Your task to perform on an android device: check the backup settings in the google photos Image 0: 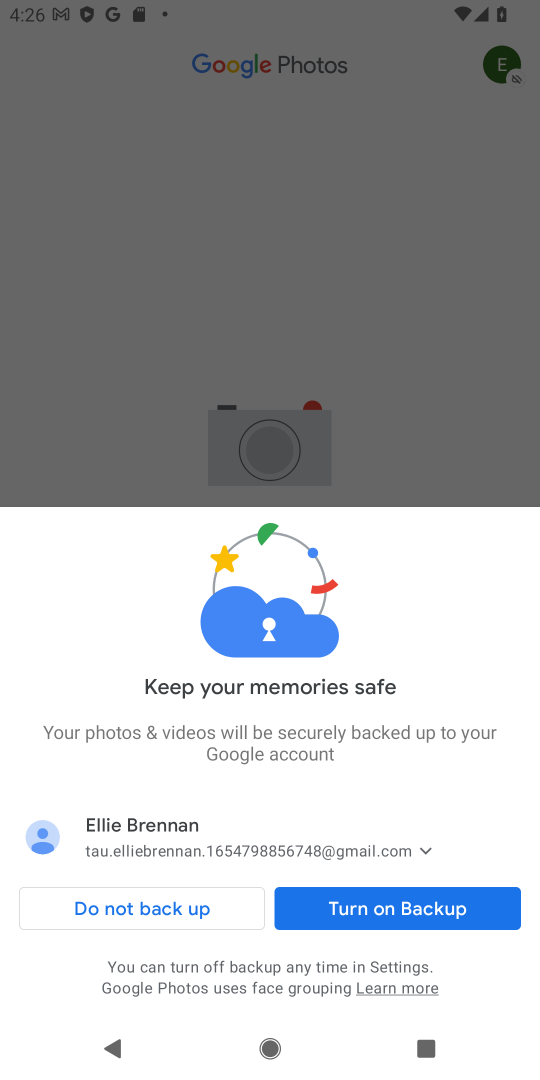
Step 0: press home button
Your task to perform on an android device: check the backup settings in the google photos Image 1: 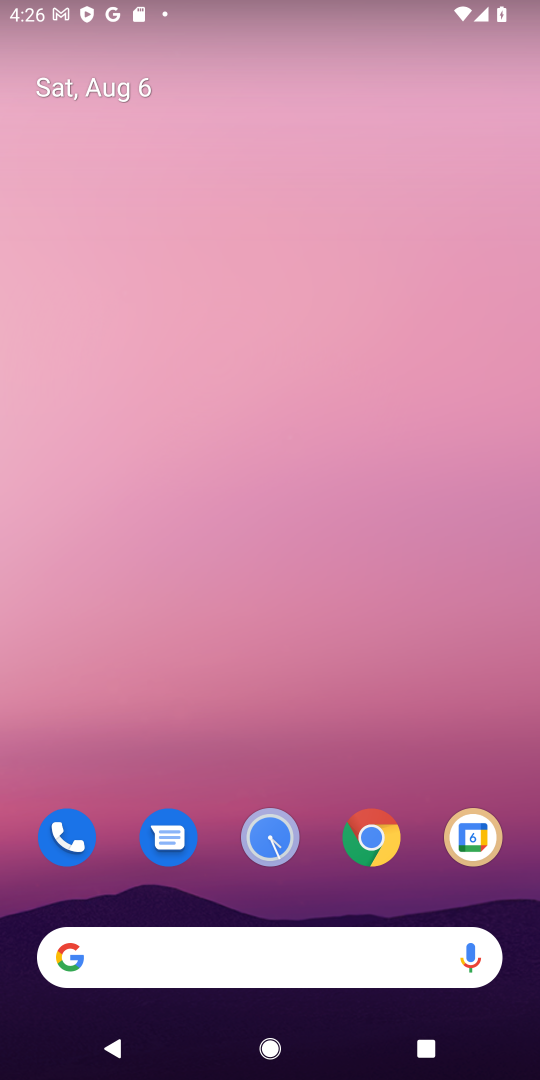
Step 1: drag from (422, 875) to (368, 85)
Your task to perform on an android device: check the backup settings in the google photos Image 2: 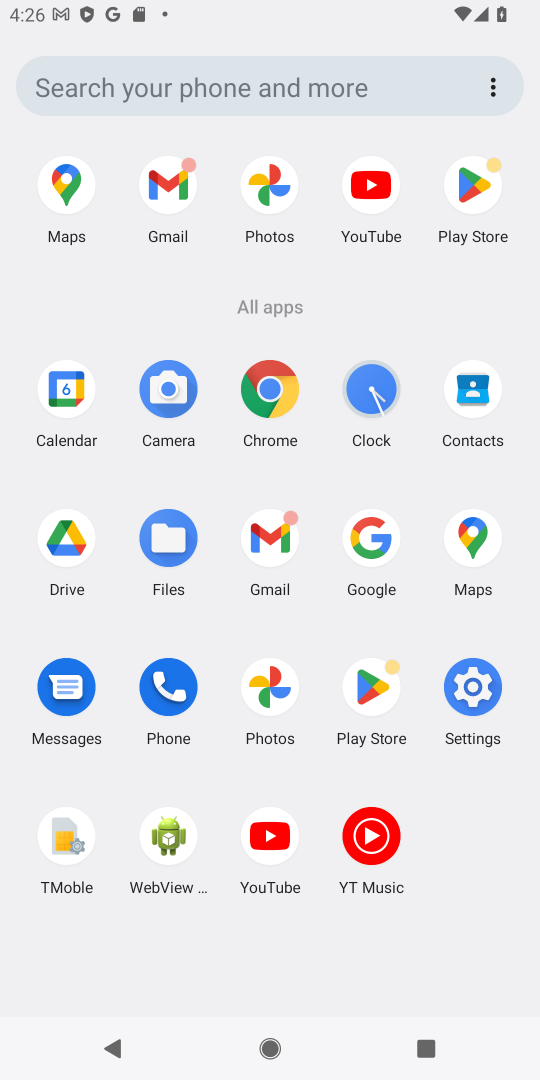
Step 2: click (267, 685)
Your task to perform on an android device: check the backup settings in the google photos Image 3: 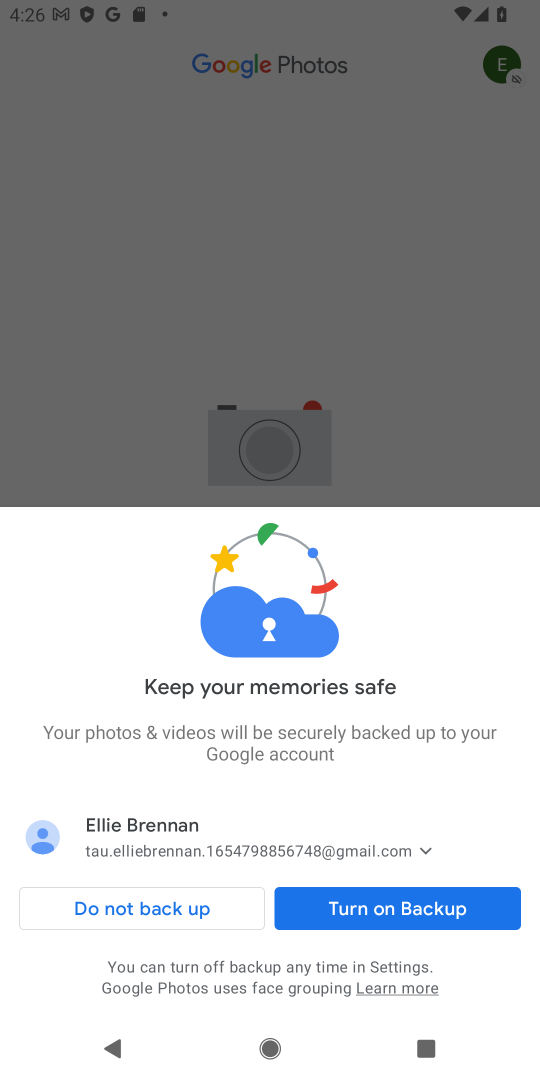
Step 3: click (393, 910)
Your task to perform on an android device: check the backup settings in the google photos Image 4: 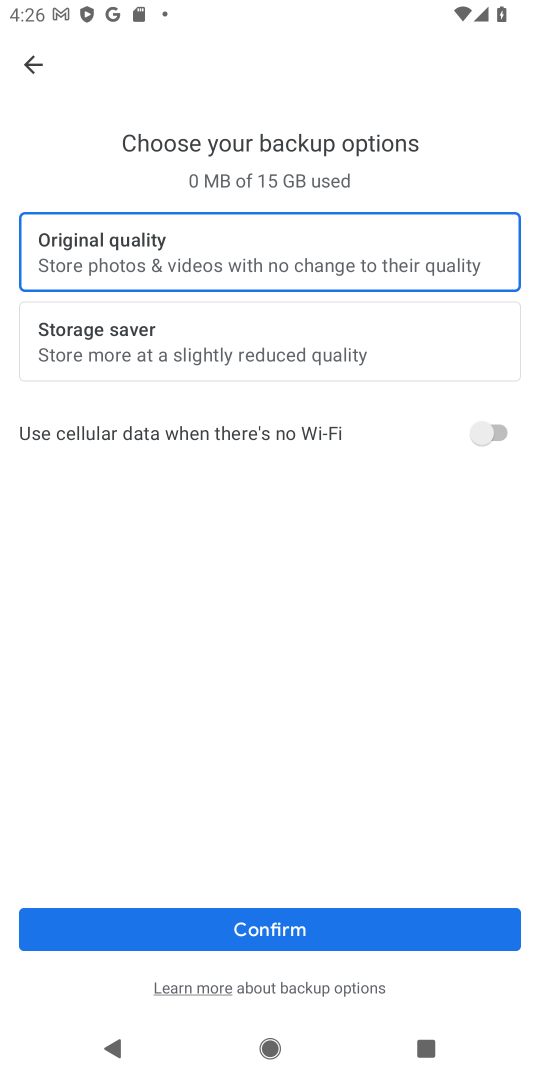
Step 4: click (272, 932)
Your task to perform on an android device: check the backup settings in the google photos Image 5: 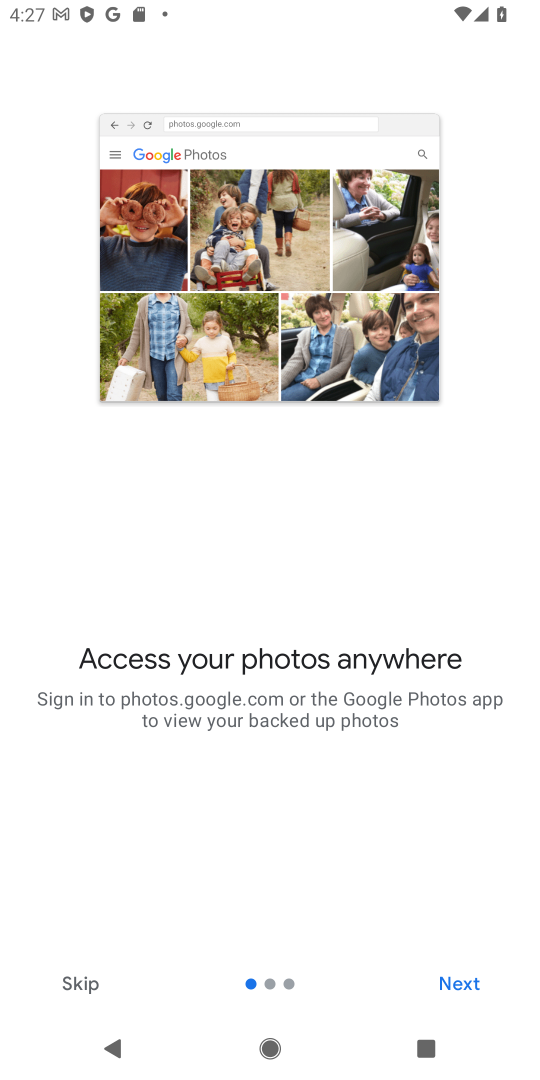
Step 5: click (75, 980)
Your task to perform on an android device: check the backup settings in the google photos Image 6: 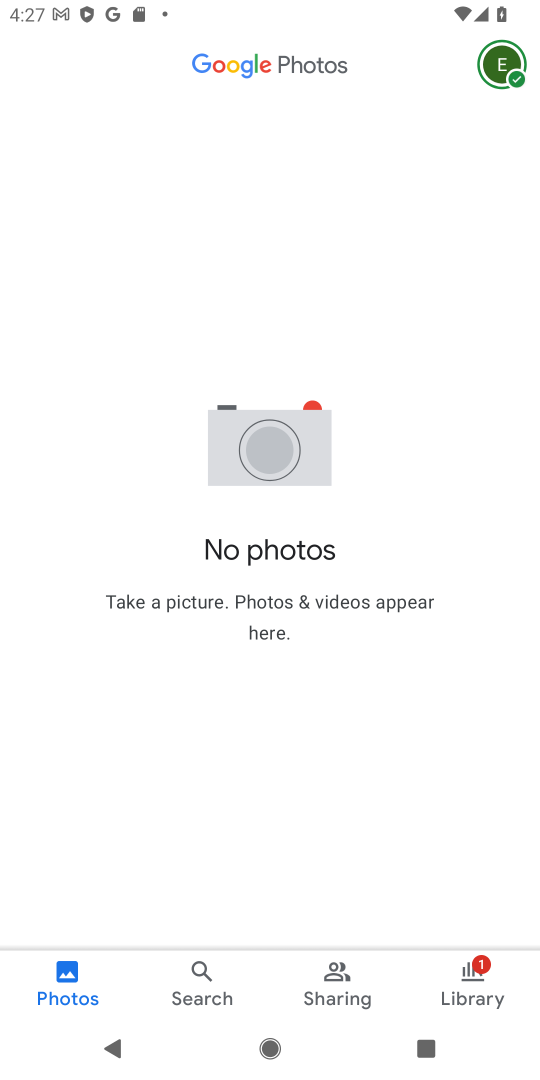
Step 6: click (504, 77)
Your task to perform on an android device: check the backup settings in the google photos Image 7: 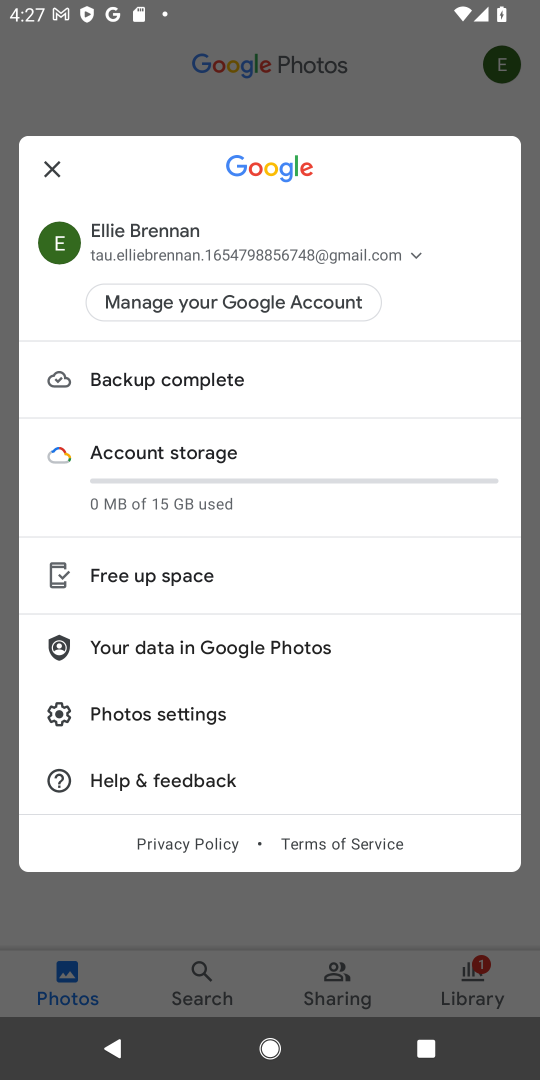
Step 7: click (147, 712)
Your task to perform on an android device: check the backup settings in the google photos Image 8: 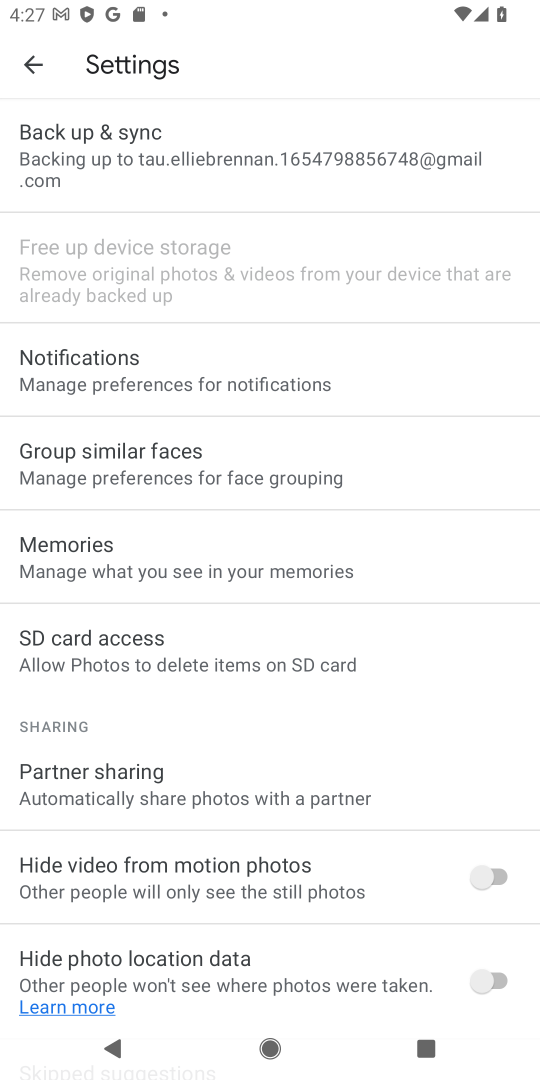
Step 8: click (119, 126)
Your task to perform on an android device: check the backup settings in the google photos Image 9: 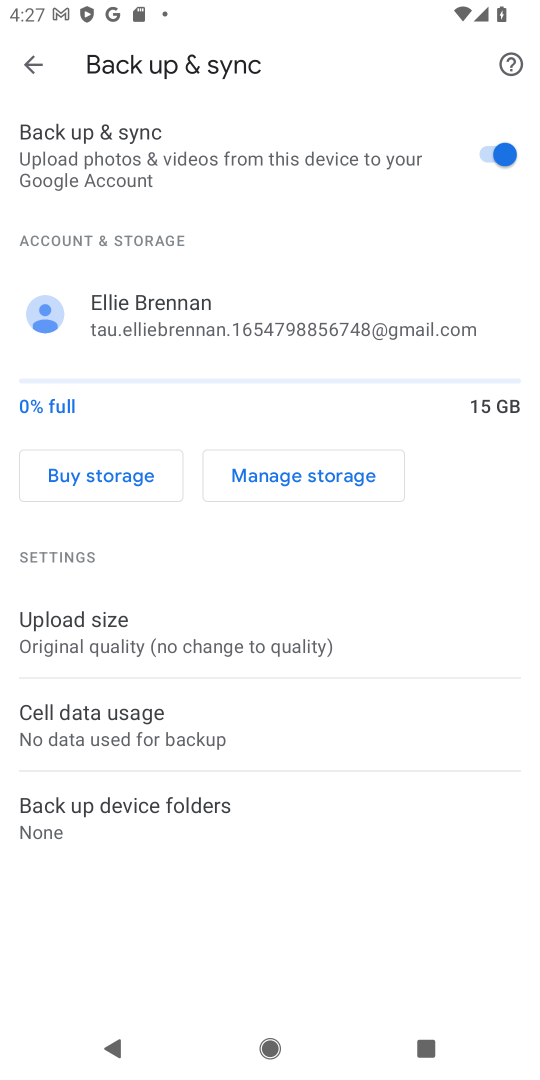
Step 9: task complete